Your task to perform on an android device: turn on bluetooth scan Image 0: 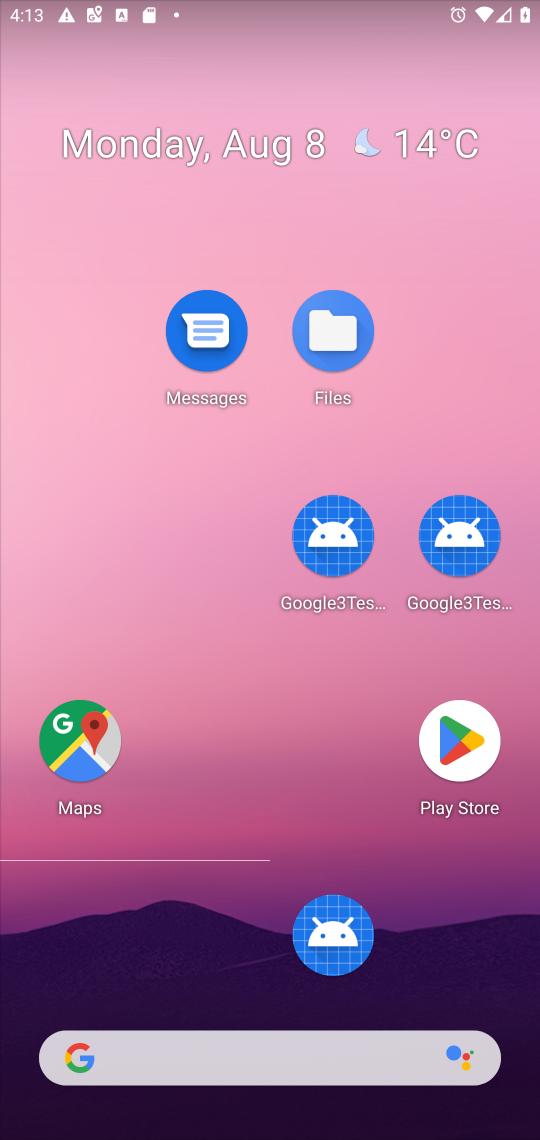
Step 0: drag from (227, 1058) to (198, 166)
Your task to perform on an android device: turn on bluetooth scan Image 1: 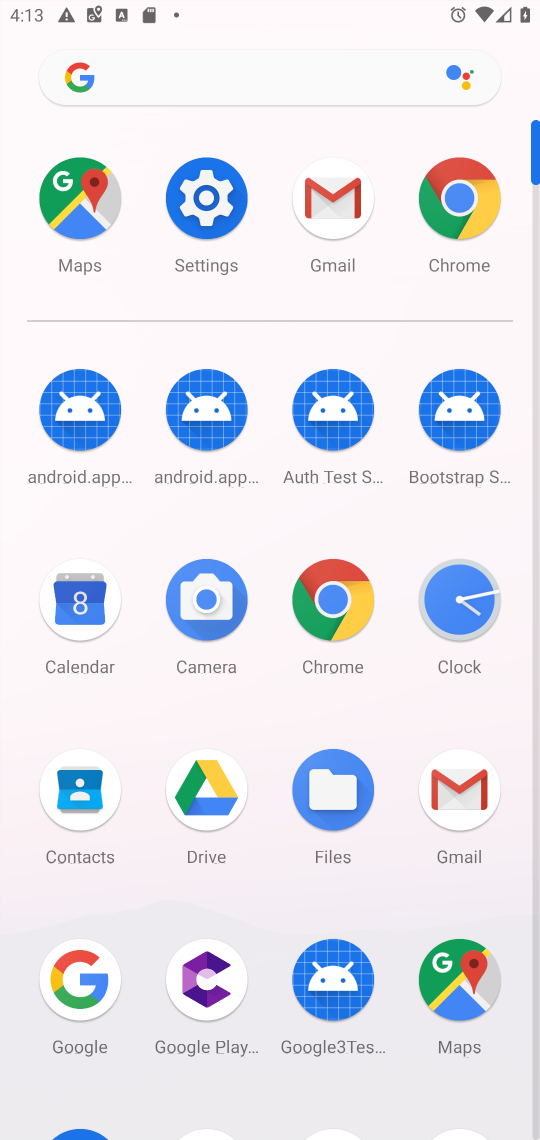
Step 1: click (204, 213)
Your task to perform on an android device: turn on bluetooth scan Image 2: 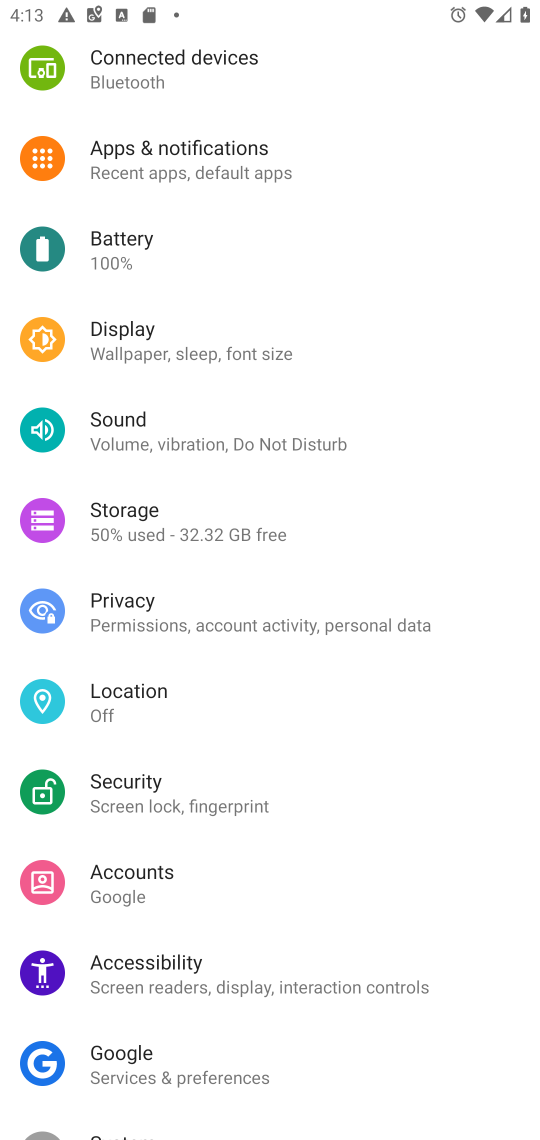
Step 2: click (166, 702)
Your task to perform on an android device: turn on bluetooth scan Image 3: 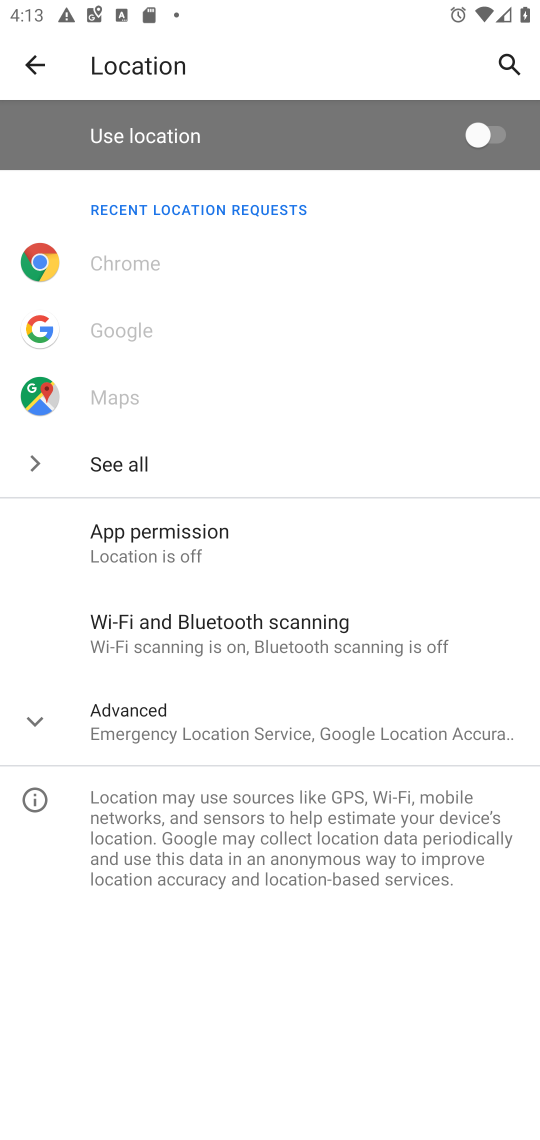
Step 3: click (182, 649)
Your task to perform on an android device: turn on bluetooth scan Image 4: 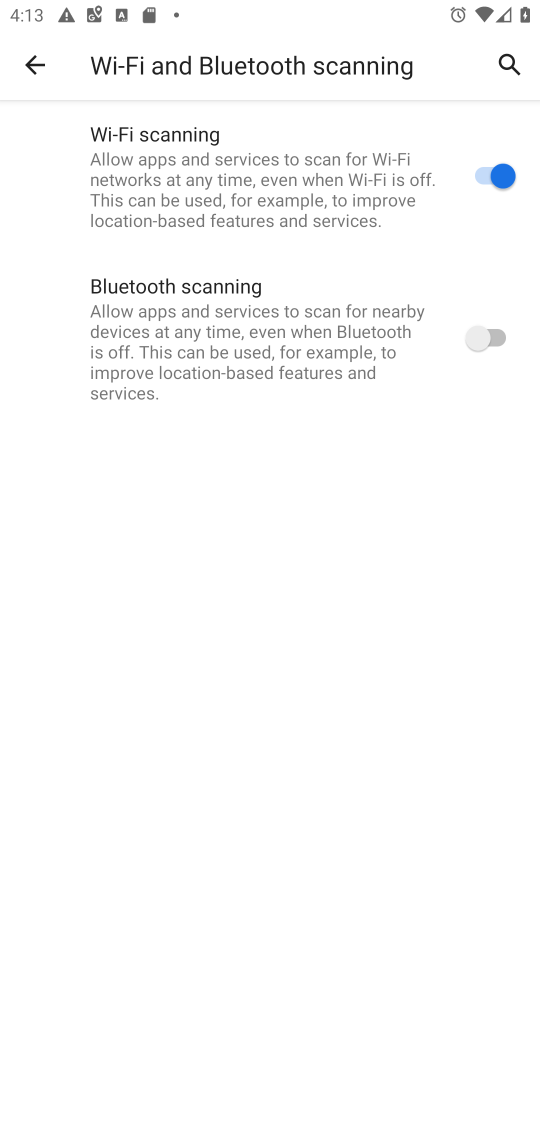
Step 4: click (484, 336)
Your task to perform on an android device: turn on bluetooth scan Image 5: 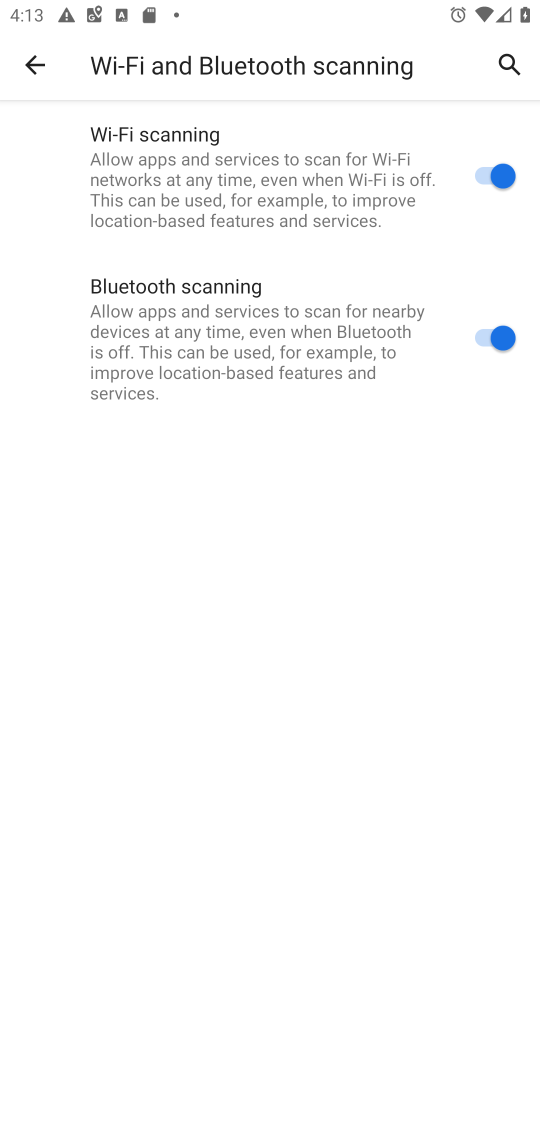
Step 5: task complete